Your task to perform on an android device: Is it going to rain tomorrow? Image 0: 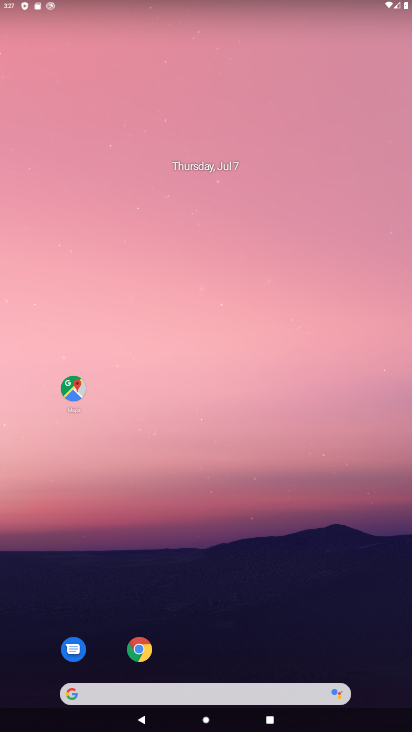
Step 0: click (265, 124)
Your task to perform on an android device: Is it going to rain tomorrow? Image 1: 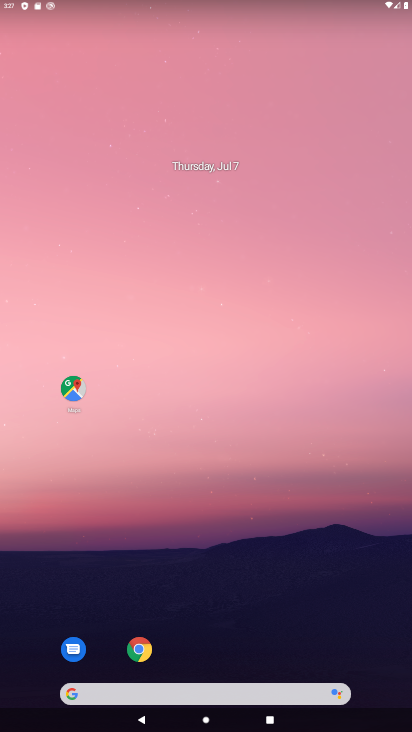
Step 1: press home button
Your task to perform on an android device: Is it going to rain tomorrow? Image 2: 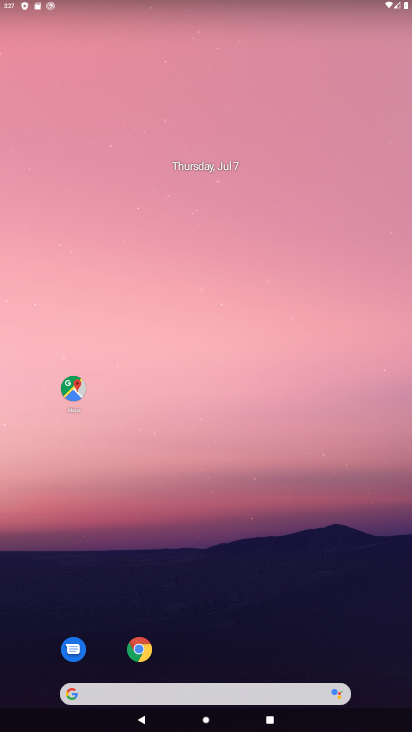
Step 2: drag from (392, 663) to (266, 33)
Your task to perform on an android device: Is it going to rain tomorrow? Image 3: 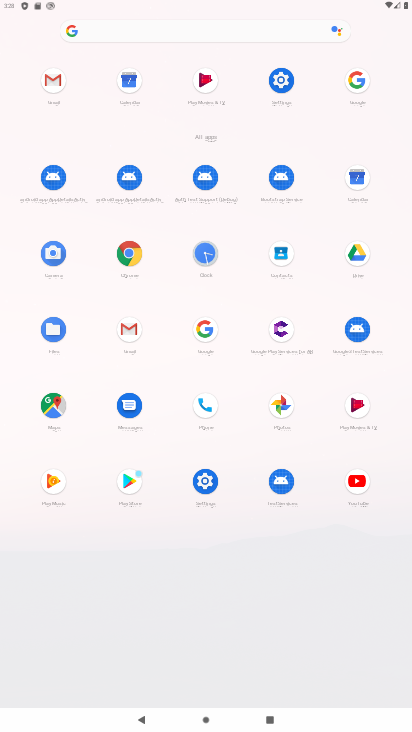
Step 3: click (360, 78)
Your task to perform on an android device: Is it going to rain tomorrow? Image 4: 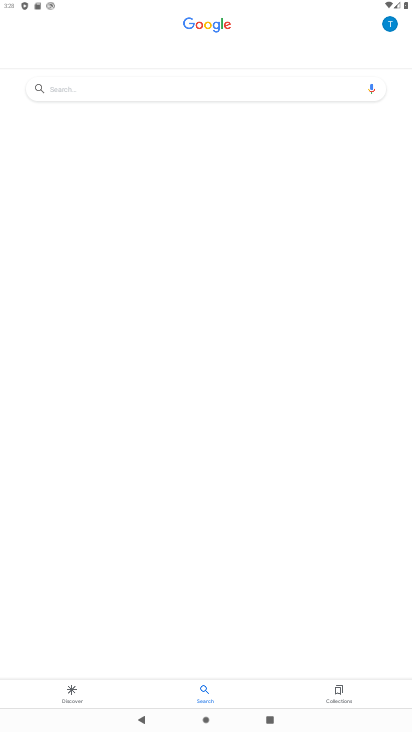
Step 4: click (144, 89)
Your task to perform on an android device: Is it going to rain tomorrow? Image 5: 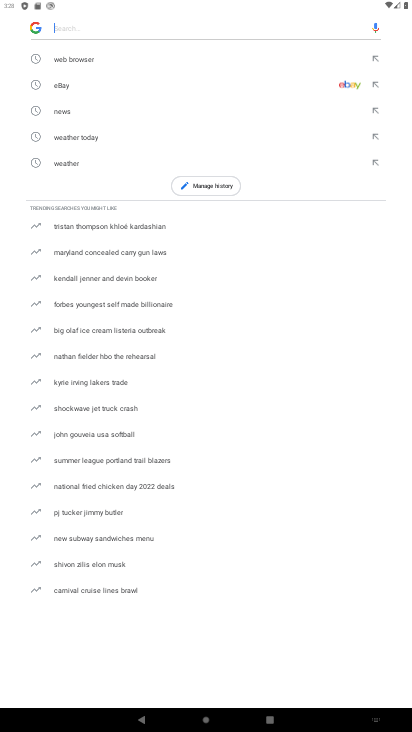
Step 5: type "Is it going to rain tomorrow?"
Your task to perform on an android device: Is it going to rain tomorrow? Image 6: 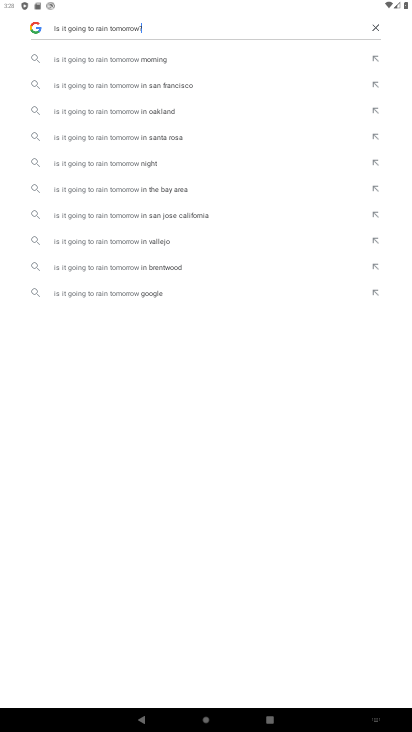
Step 6: task complete